Your task to perform on an android device: turn off location Image 0: 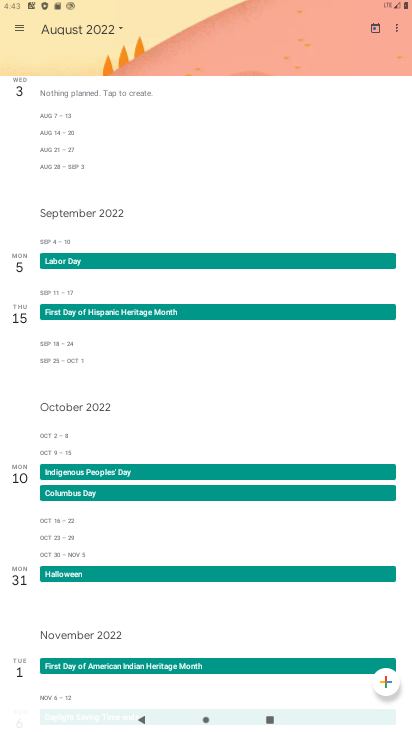
Step 0: press back button
Your task to perform on an android device: turn off location Image 1: 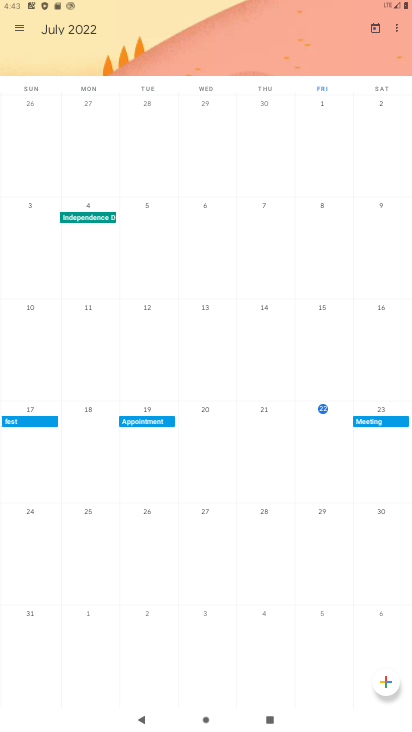
Step 1: press back button
Your task to perform on an android device: turn off location Image 2: 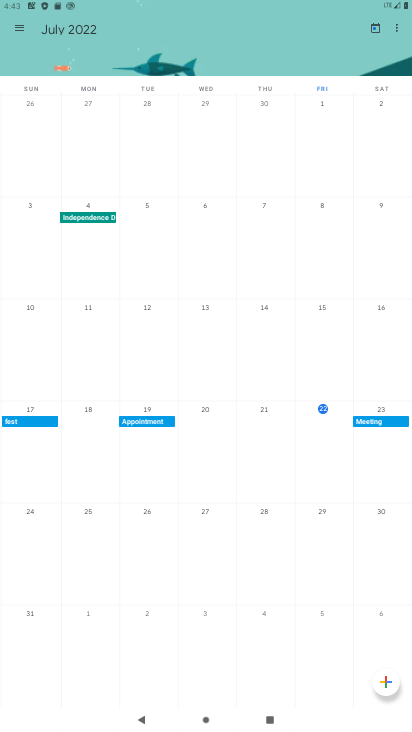
Step 2: press back button
Your task to perform on an android device: turn off location Image 3: 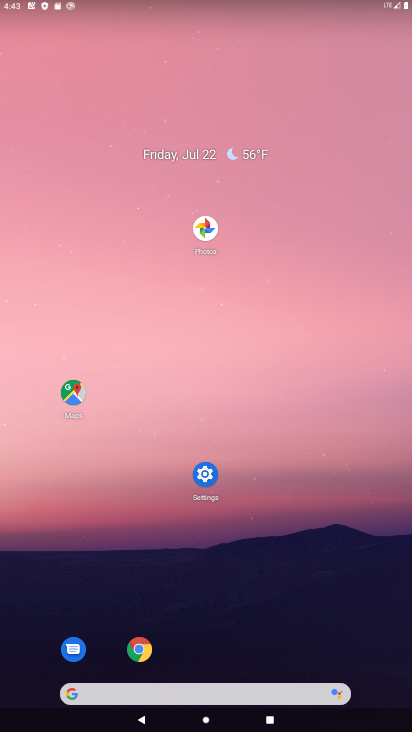
Step 3: drag from (218, 585) to (201, 123)
Your task to perform on an android device: turn off location Image 4: 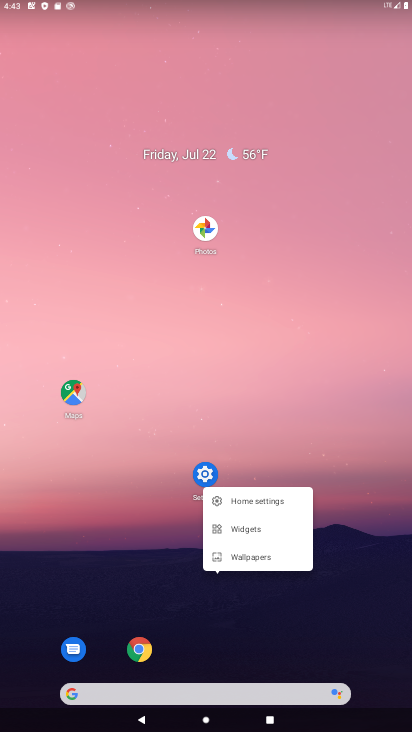
Step 4: click (205, 76)
Your task to perform on an android device: turn off location Image 5: 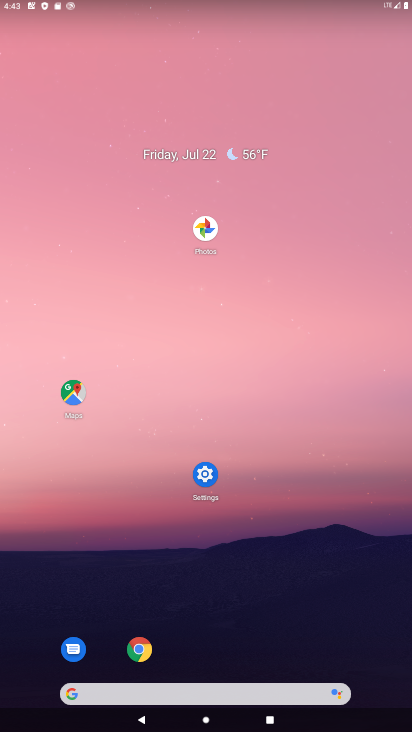
Step 5: drag from (237, 204) to (210, 1)
Your task to perform on an android device: turn off location Image 6: 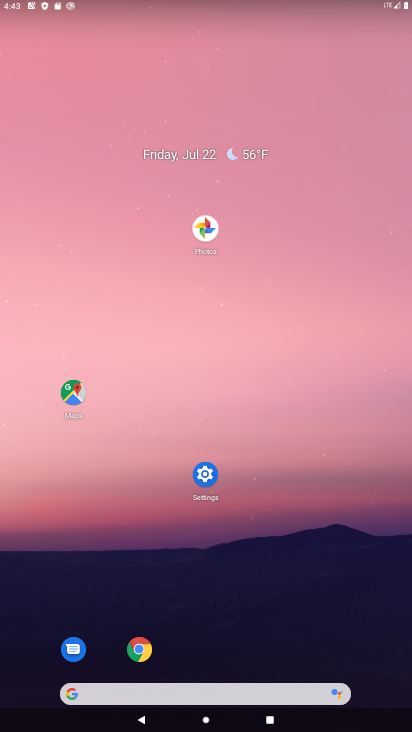
Step 6: click (117, 68)
Your task to perform on an android device: turn off location Image 7: 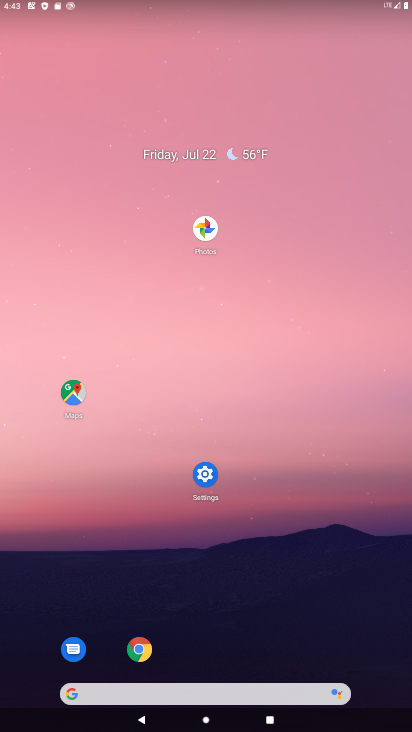
Step 7: drag from (162, 387) to (158, 117)
Your task to perform on an android device: turn off location Image 8: 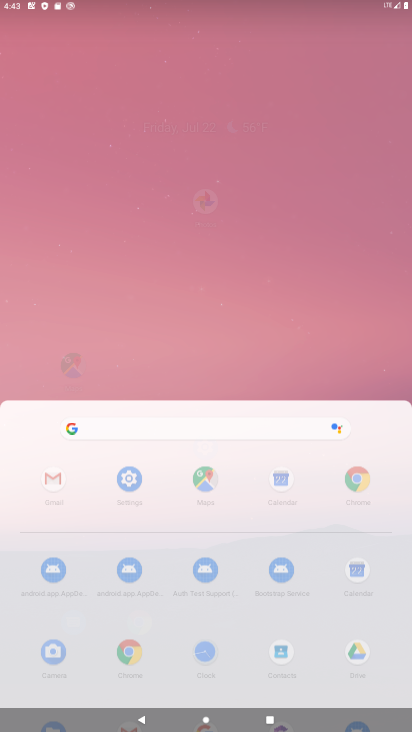
Step 8: click (171, 68)
Your task to perform on an android device: turn off location Image 9: 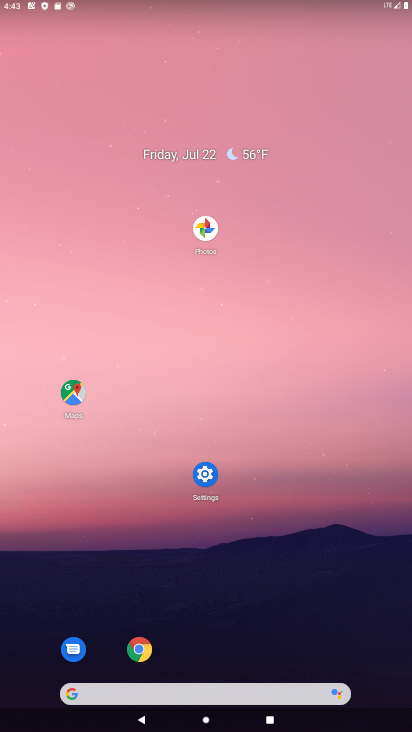
Step 9: drag from (268, 423) to (228, 146)
Your task to perform on an android device: turn off location Image 10: 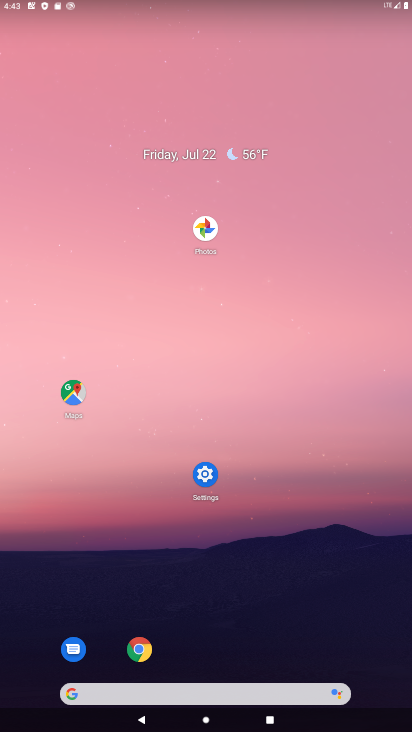
Step 10: drag from (128, 130) to (197, 62)
Your task to perform on an android device: turn off location Image 11: 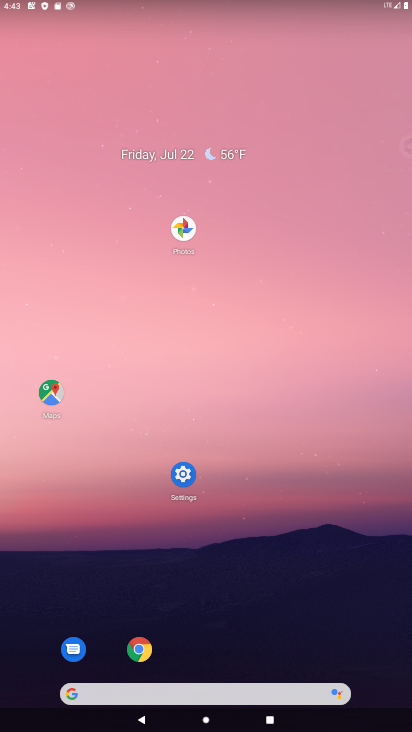
Step 11: drag from (206, 214) to (157, 73)
Your task to perform on an android device: turn off location Image 12: 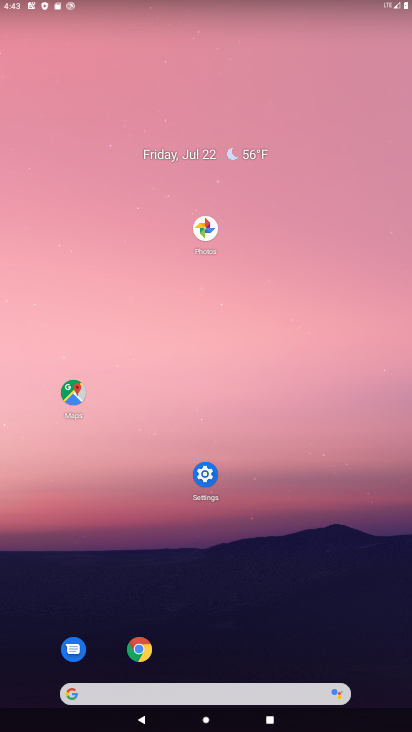
Step 12: drag from (116, 115) to (127, 18)
Your task to perform on an android device: turn off location Image 13: 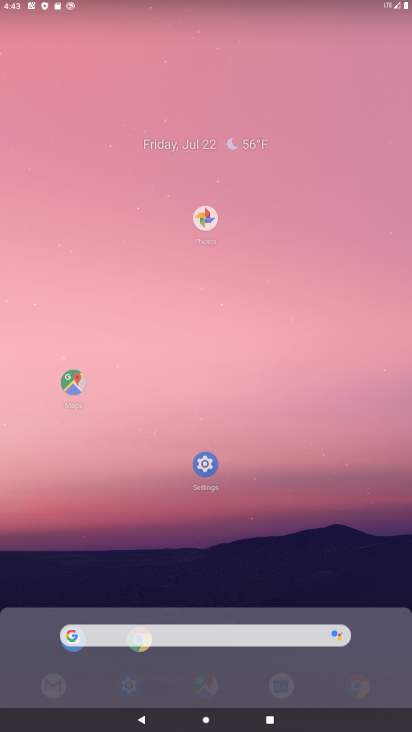
Step 13: drag from (172, 271) to (192, 117)
Your task to perform on an android device: turn off location Image 14: 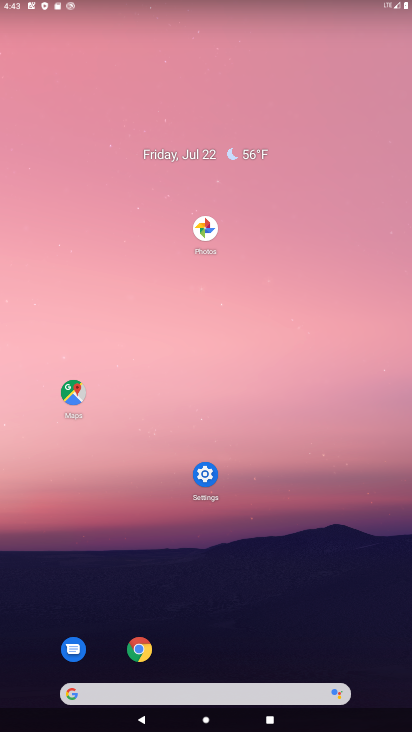
Step 14: drag from (251, 579) to (287, 233)
Your task to perform on an android device: turn off location Image 15: 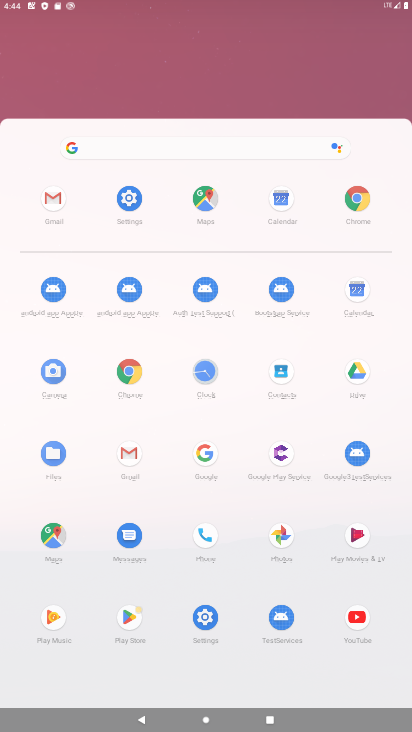
Step 15: drag from (308, 630) to (244, 53)
Your task to perform on an android device: turn off location Image 16: 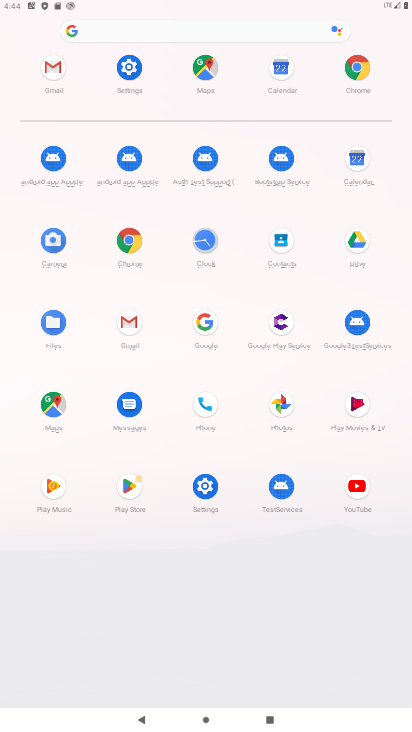
Step 16: drag from (208, 427) to (205, 114)
Your task to perform on an android device: turn off location Image 17: 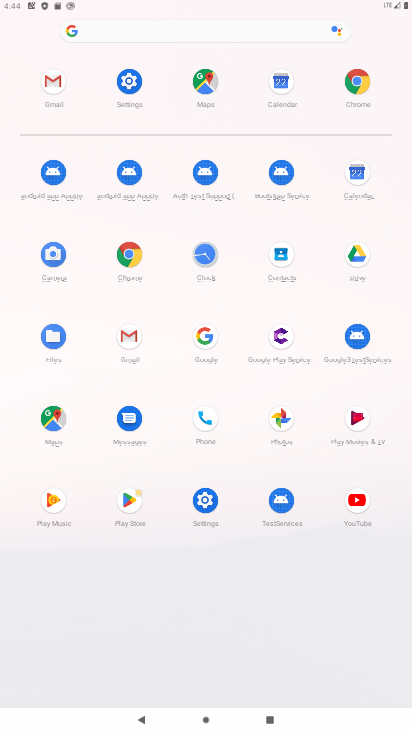
Step 17: click (200, 504)
Your task to perform on an android device: turn off location Image 18: 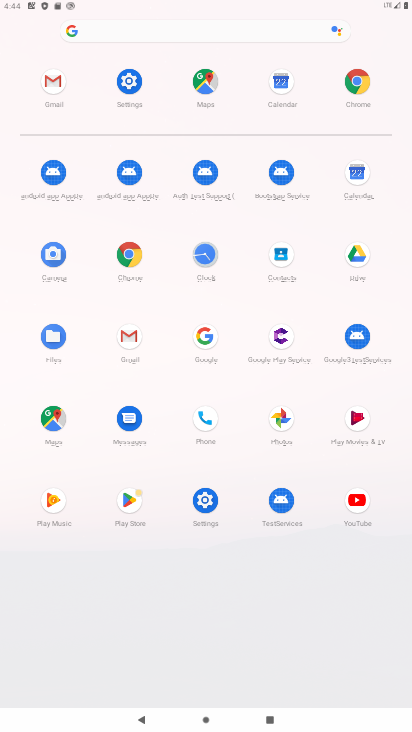
Step 18: click (200, 504)
Your task to perform on an android device: turn off location Image 19: 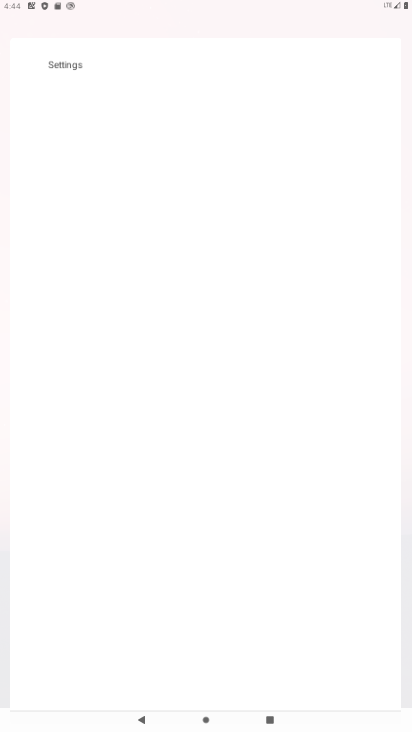
Step 19: click (200, 504)
Your task to perform on an android device: turn off location Image 20: 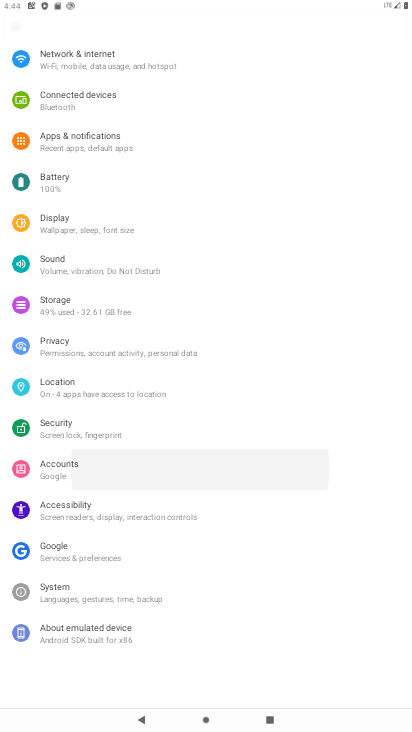
Step 20: click (203, 504)
Your task to perform on an android device: turn off location Image 21: 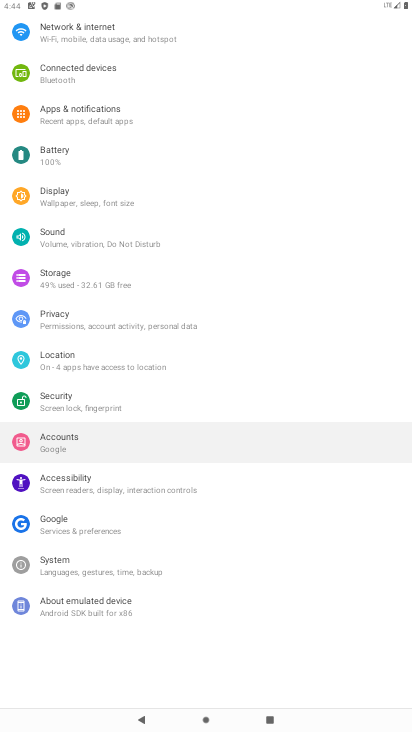
Step 21: click (212, 499)
Your task to perform on an android device: turn off location Image 22: 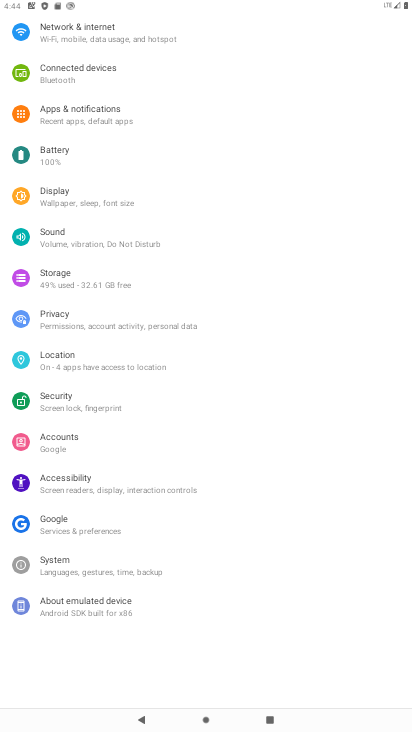
Step 22: click (212, 498)
Your task to perform on an android device: turn off location Image 23: 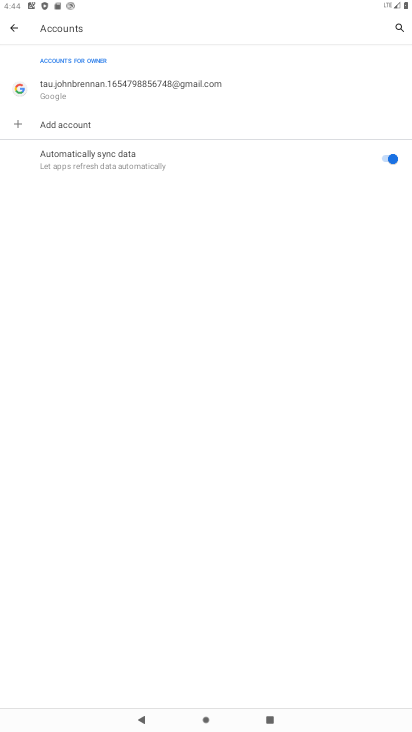
Step 23: click (17, 34)
Your task to perform on an android device: turn off location Image 24: 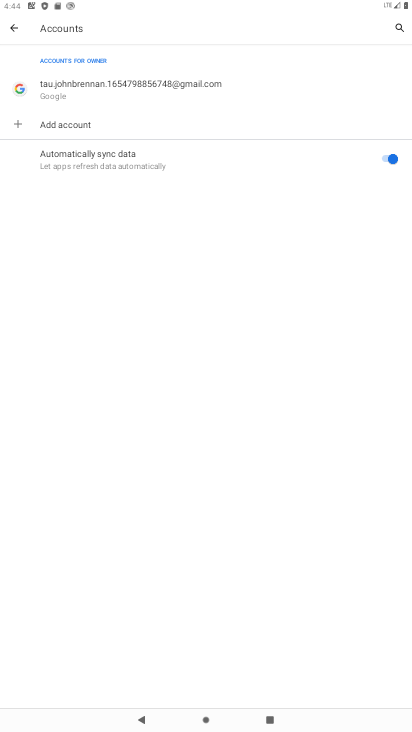
Step 24: click (16, 33)
Your task to perform on an android device: turn off location Image 25: 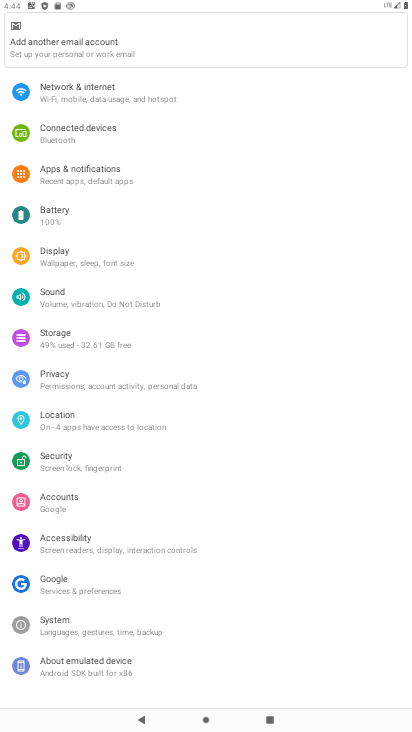
Step 25: click (62, 426)
Your task to perform on an android device: turn off location Image 26: 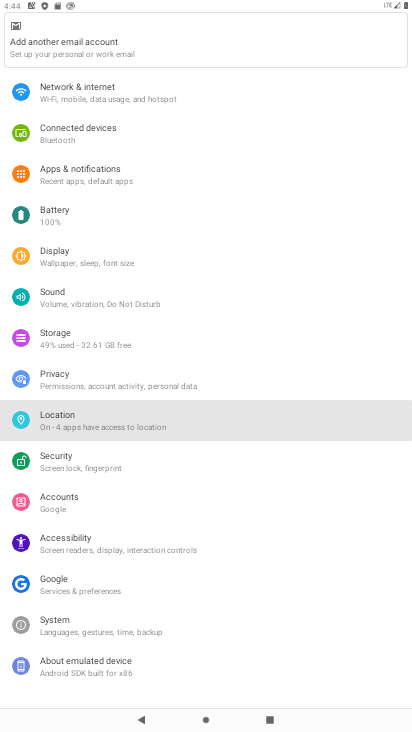
Step 26: click (62, 426)
Your task to perform on an android device: turn off location Image 27: 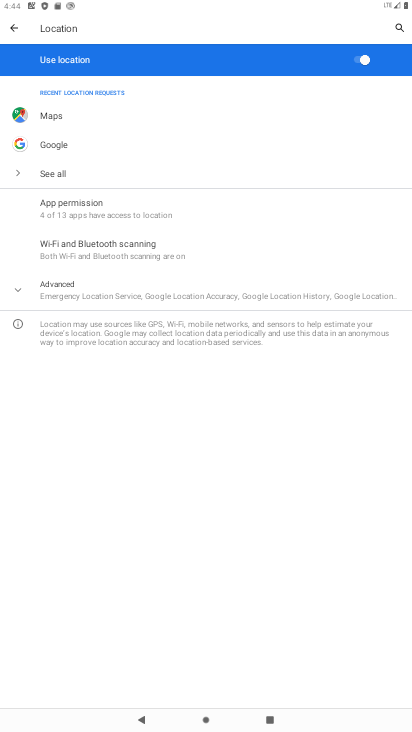
Step 27: click (370, 62)
Your task to perform on an android device: turn off location Image 28: 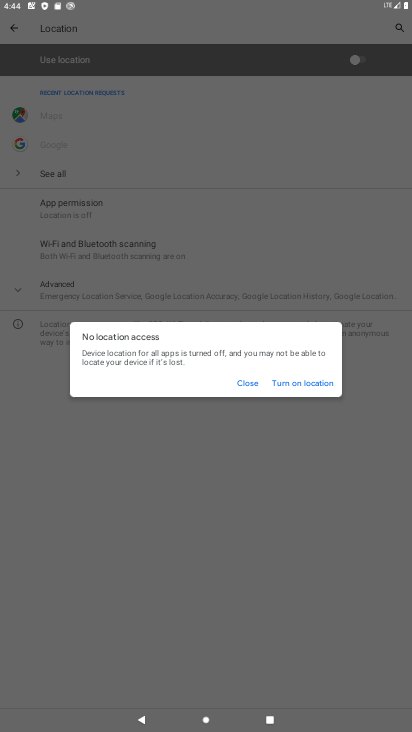
Step 28: task complete